Your task to perform on an android device: open chrome privacy settings Image 0: 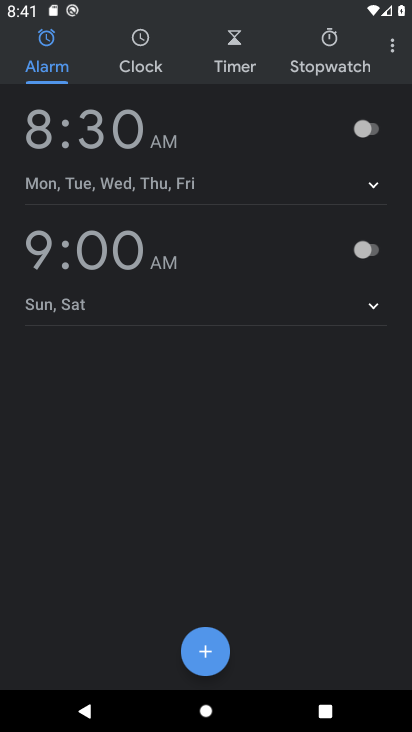
Step 0: press home button
Your task to perform on an android device: open chrome privacy settings Image 1: 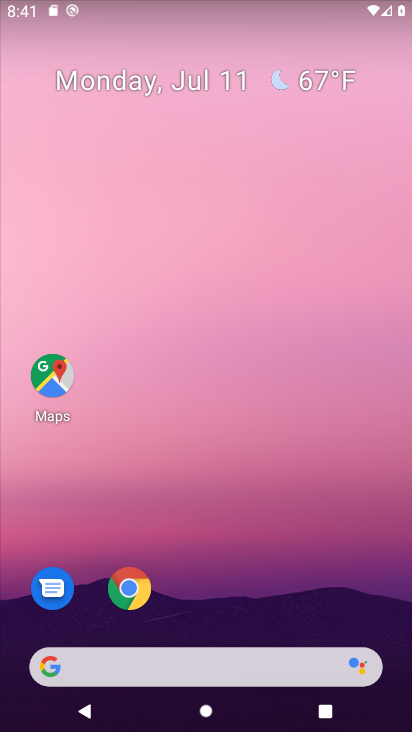
Step 1: click (135, 577)
Your task to perform on an android device: open chrome privacy settings Image 2: 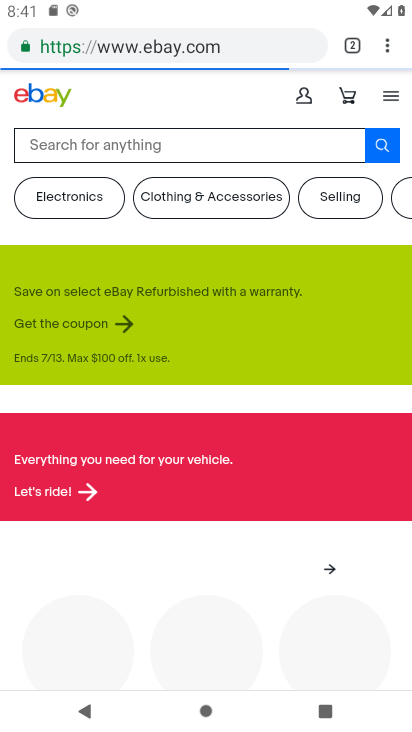
Step 2: click (388, 37)
Your task to perform on an android device: open chrome privacy settings Image 3: 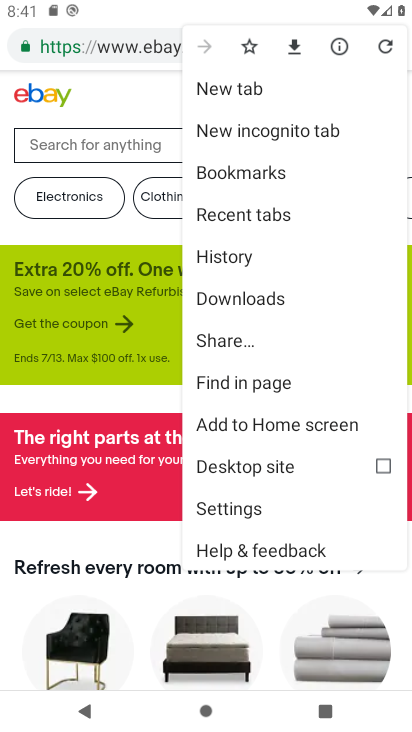
Step 3: click (247, 512)
Your task to perform on an android device: open chrome privacy settings Image 4: 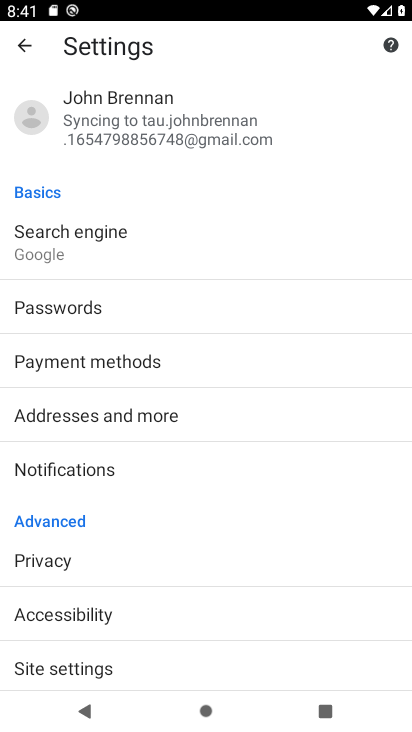
Step 4: click (48, 575)
Your task to perform on an android device: open chrome privacy settings Image 5: 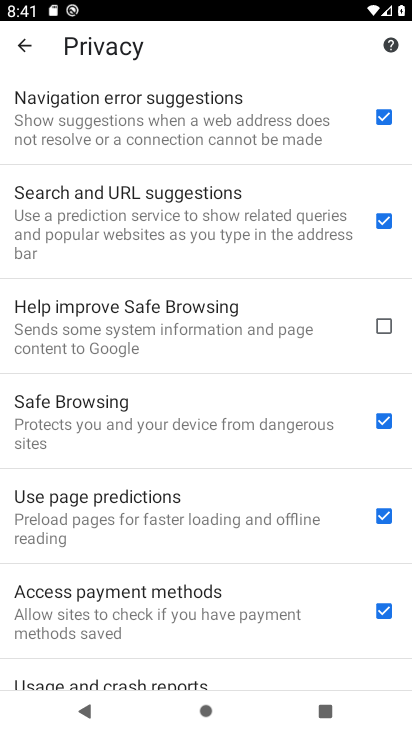
Step 5: task complete